Your task to perform on an android device: remove spam from my inbox in the gmail app Image 0: 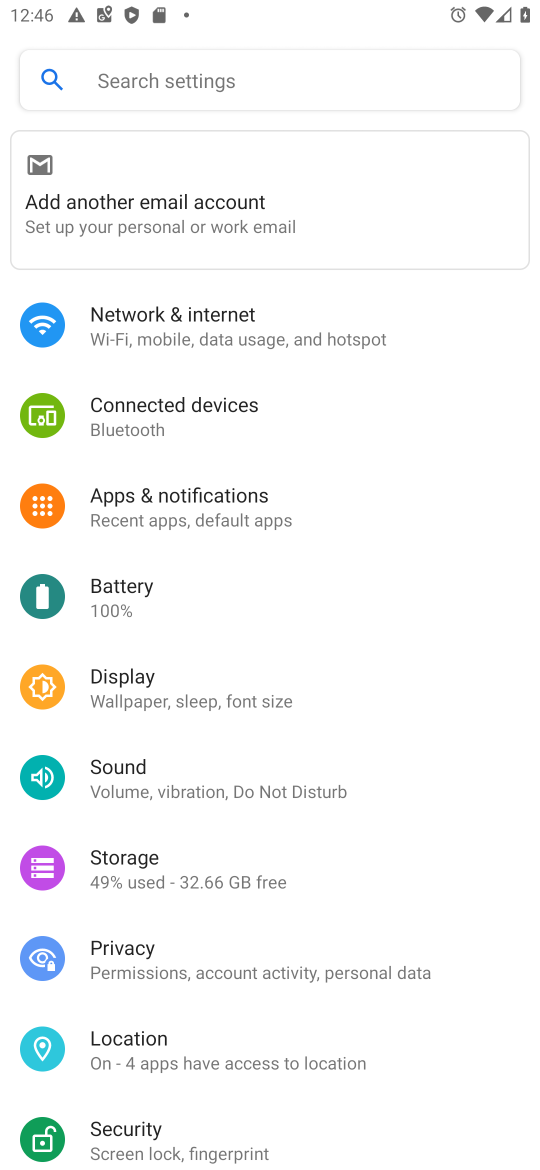
Step 0: press home button
Your task to perform on an android device: remove spam from my inbox in the gmail app Image 1: 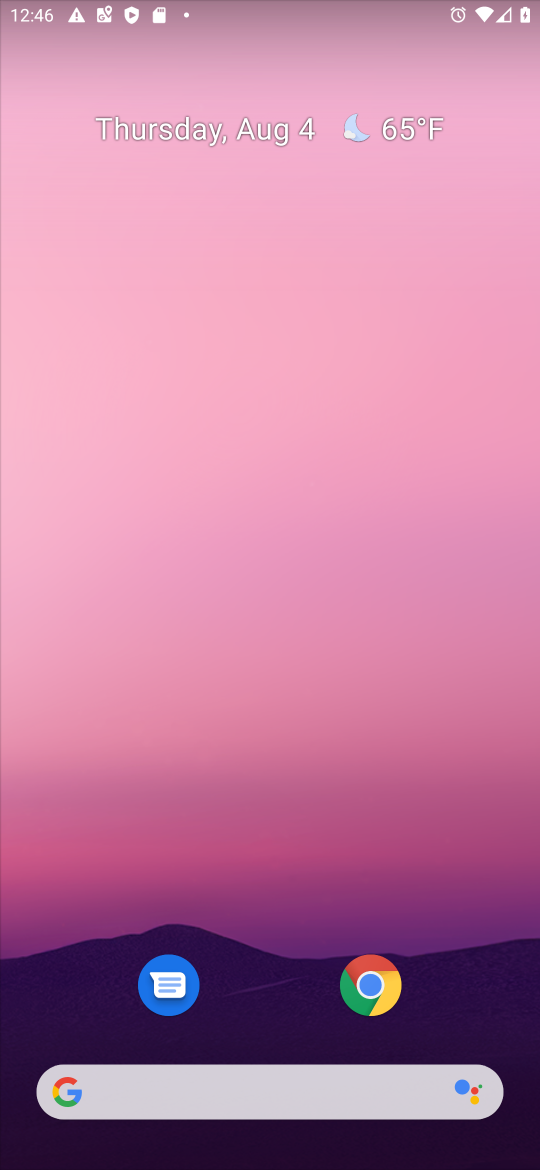
Step 1: drag from (248, 906) to (232, 48)
Your task to perform on an android device: remove spam from my inbox in the gmail app Image 2: 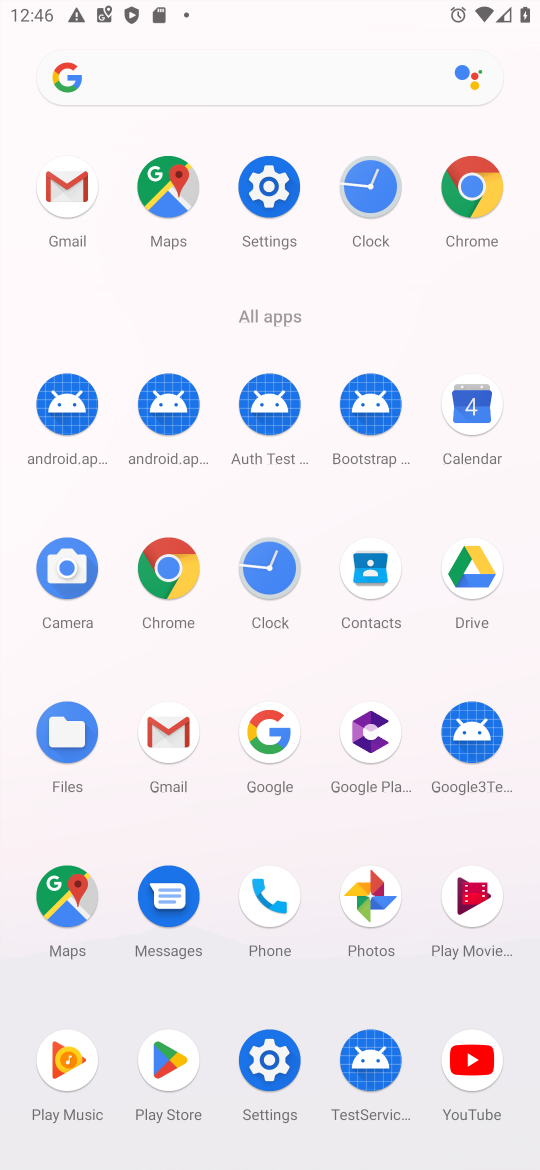
Step 2: click (64, 191)
Your task to perform on an android device: remove spam from my inbox in the gmail app Image 3: 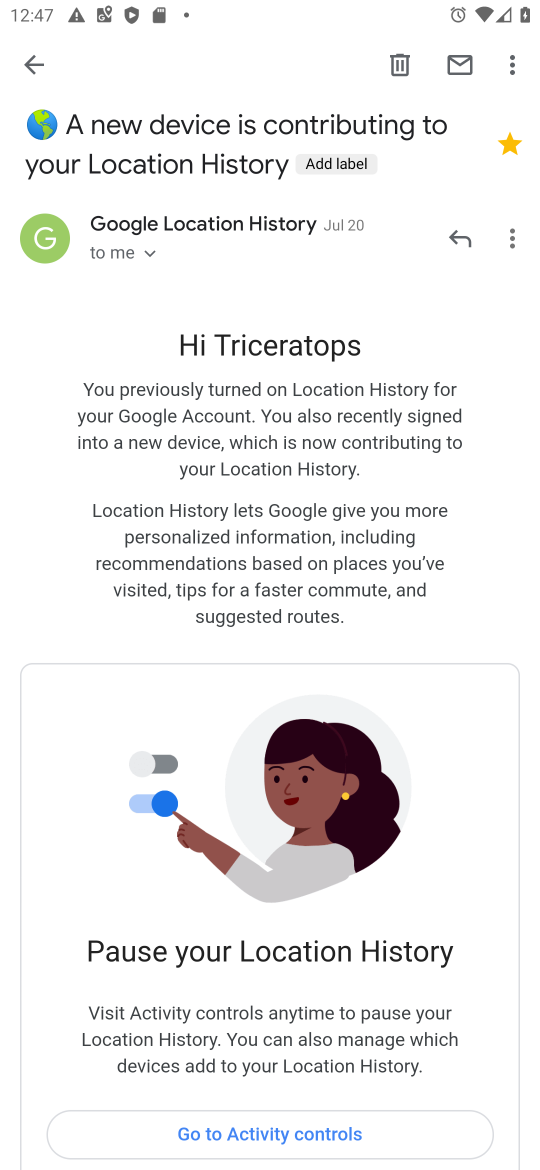
Step 3: click (31, 74)
Your task to perform on an android device: remove spam from my inbox in the gmail app Image 4: 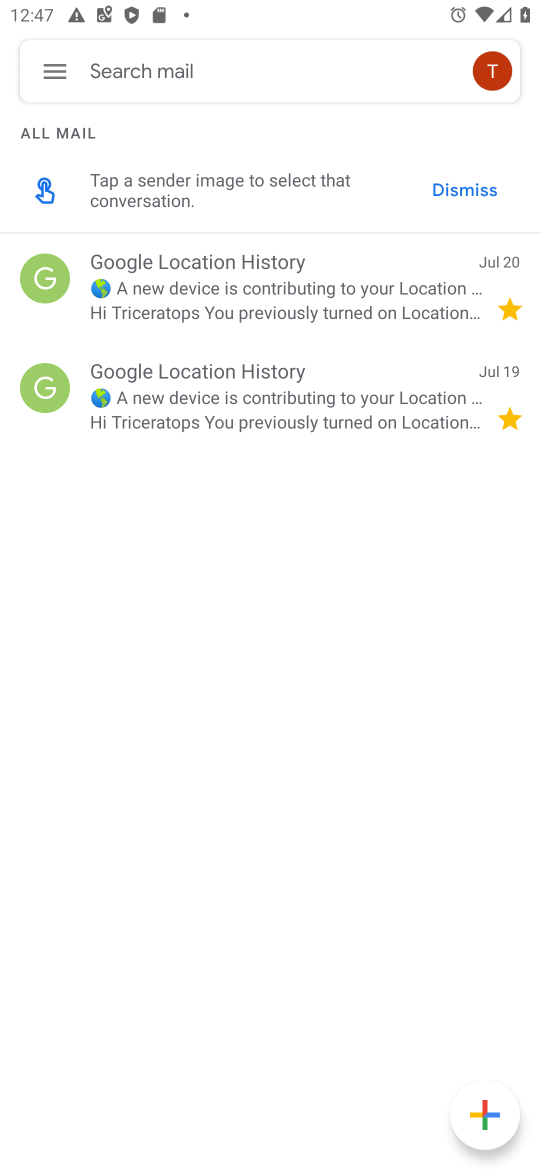
Step 4: click (56, 67)
Your task to perform on an android device: remove spam from my inbox in the gmail app Image 5: 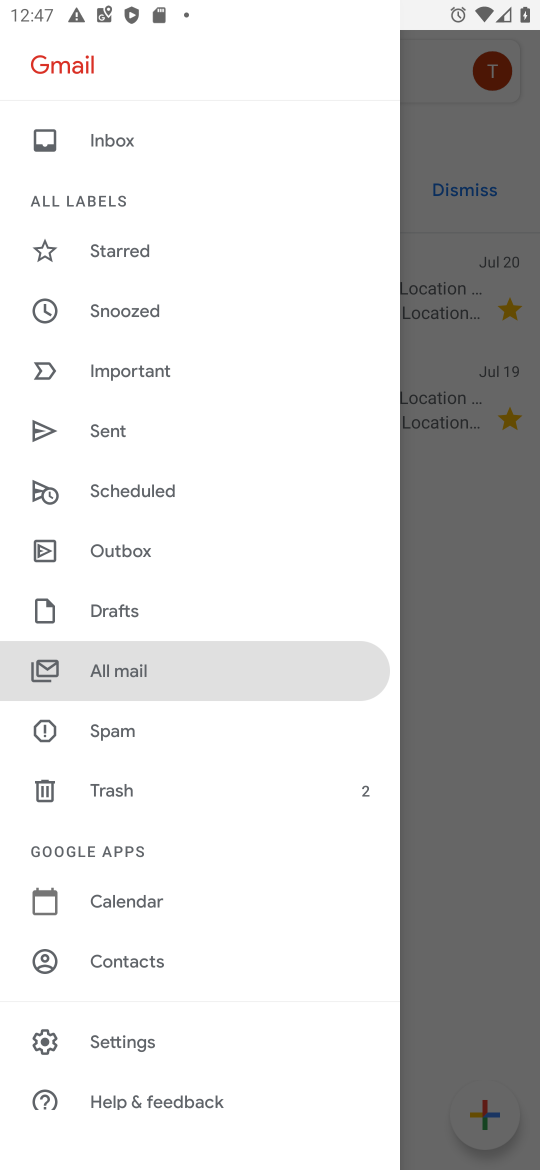
Step 5: click (95, 725)
Your task to perform on an android device: remove spam from my inbox in the gmail app Image 6: 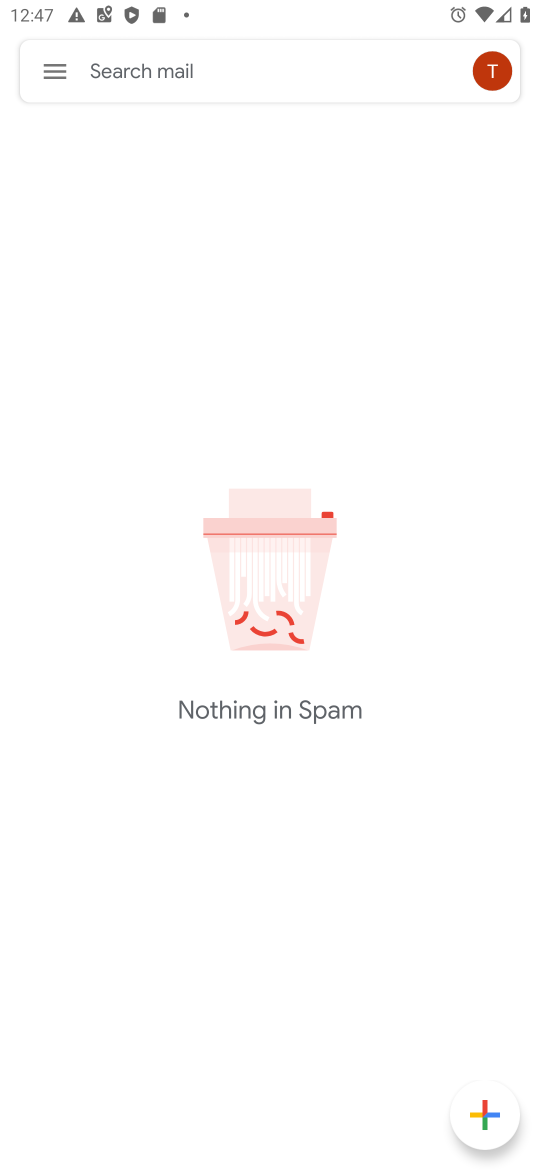
Step 6: task complete